Your task to perform on an android device: open the mobile data screen to see how much data has been used Image 0: 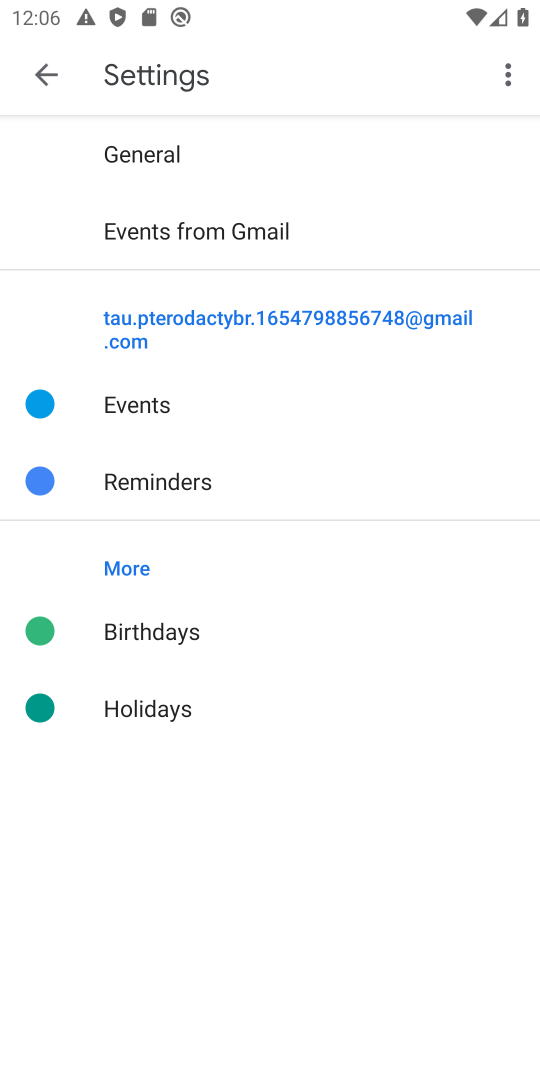
Step 0: press home button
Your task to perform on an android device: open the mobile data screen to see how much data has been used Image 1: 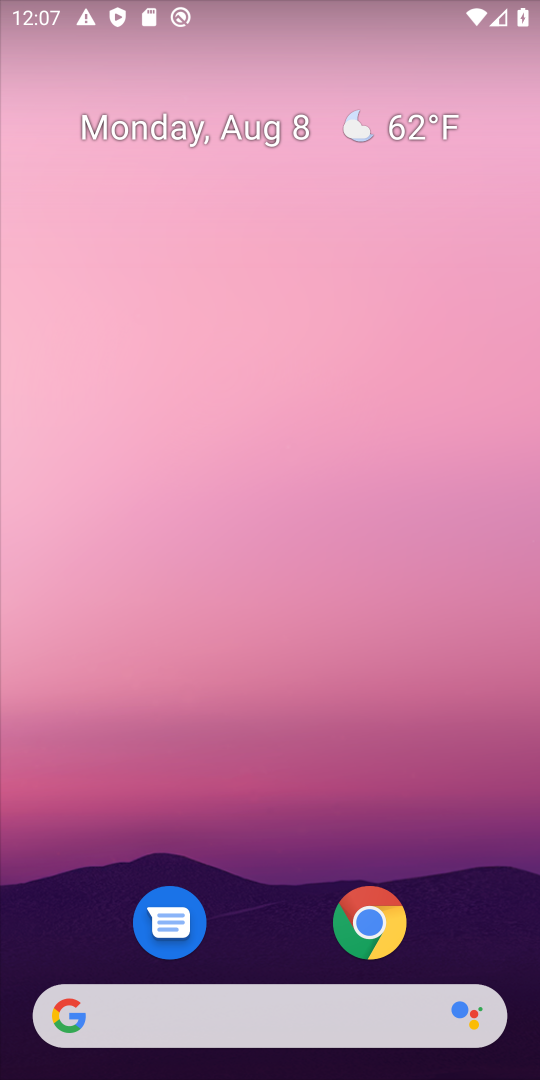
Step 1: click (487, 915)
Your task to perform on an android device: open the mobile data screen to see how much data has been used Image 2: 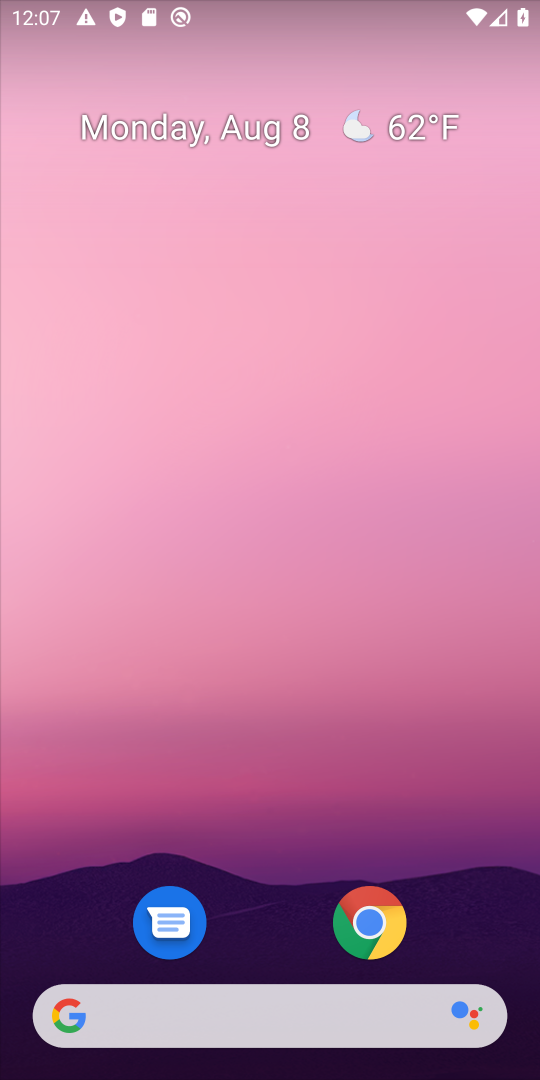
Step 2: drag from (365, 9) to (322, 409)
Your task to perform on an android device: open the mobile data screen to see how much data has been used Image 3: 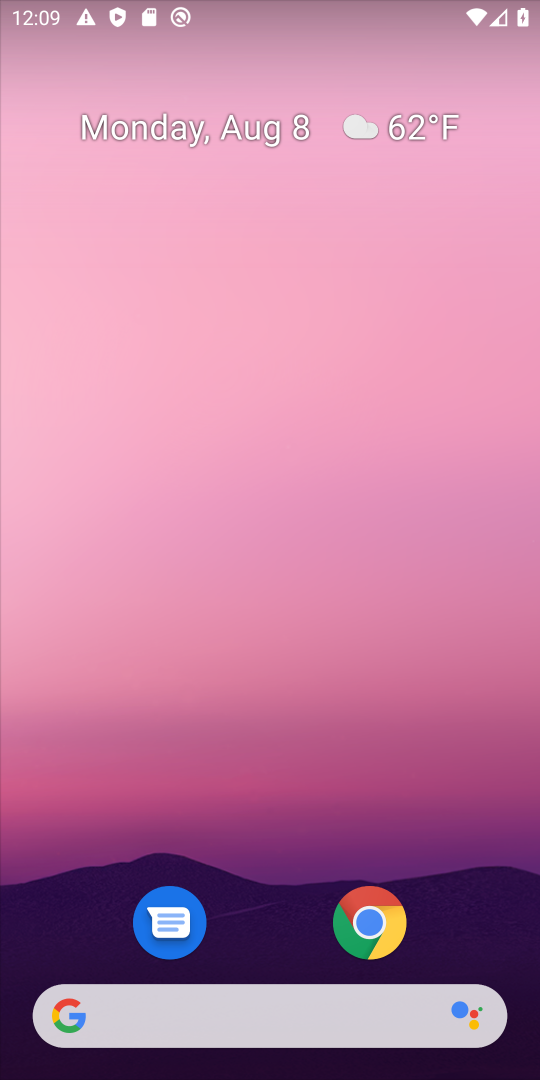
Step 3: drag from (427, 9) to (464, 809)
Your task to perform on an android device: open the mobile data screen to see how much data has been used Image 4: 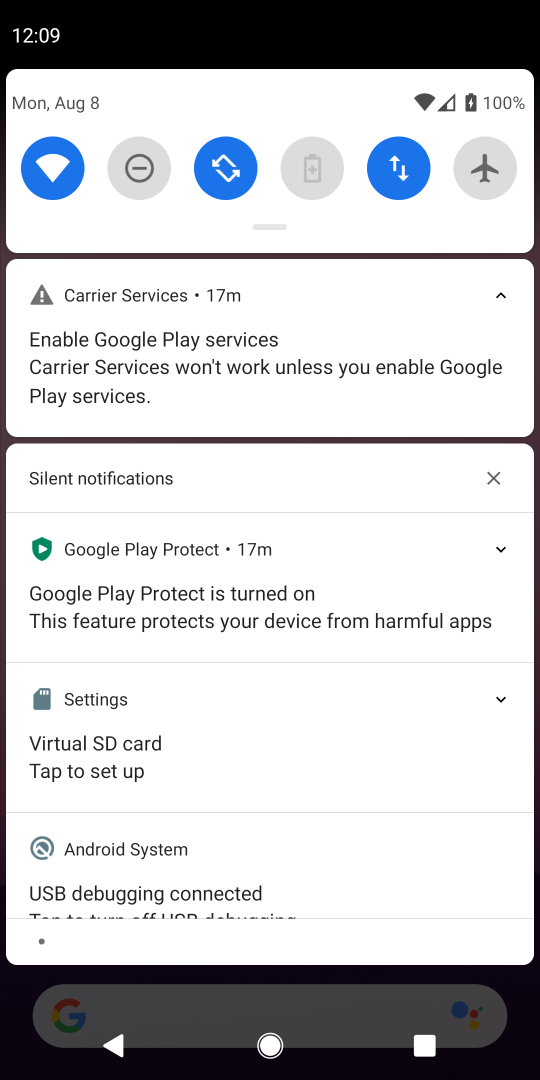
Step 4: click (400, 160)
Your task to perform on an android device: open the mobile data screen to see how much data has been used Image 5: 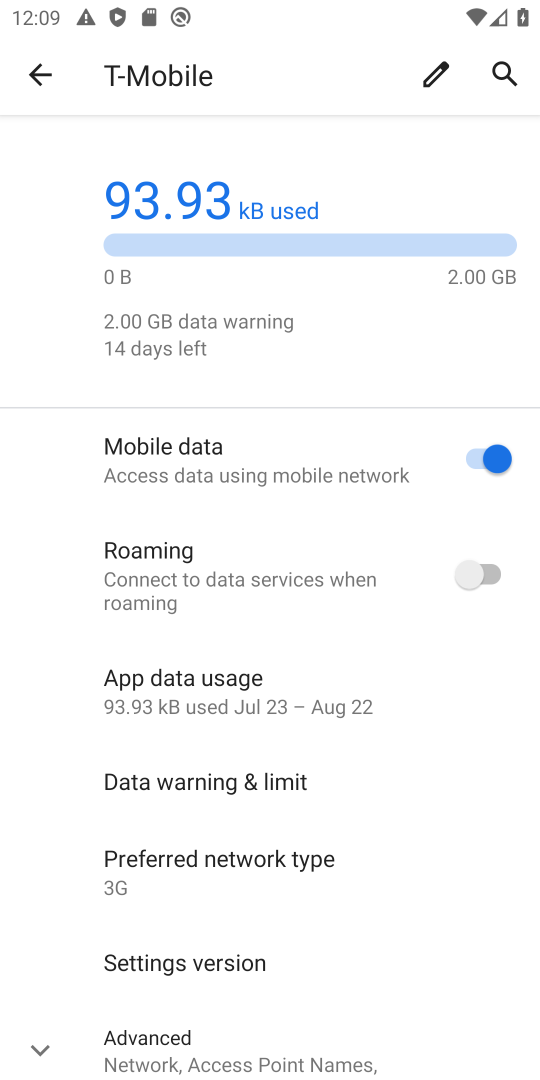
Step 5: task complete